Your task to perform on an android device: toggle improve location accuracy Image 0: 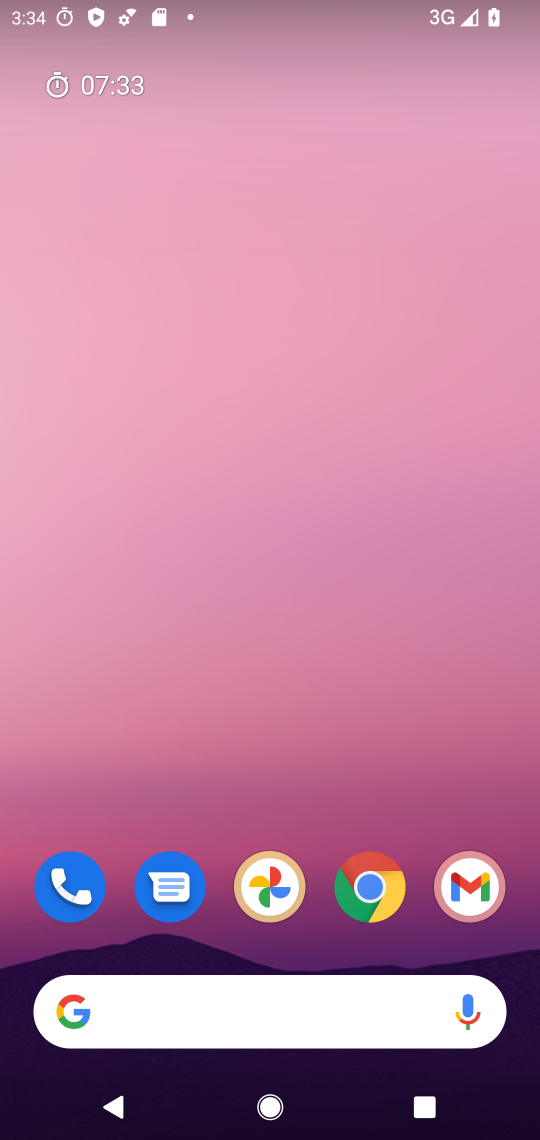
Step 0: drag from (315, 773) to (359, 228)
Your task to perform on an android device: toggle improve location accuracy Image 1: 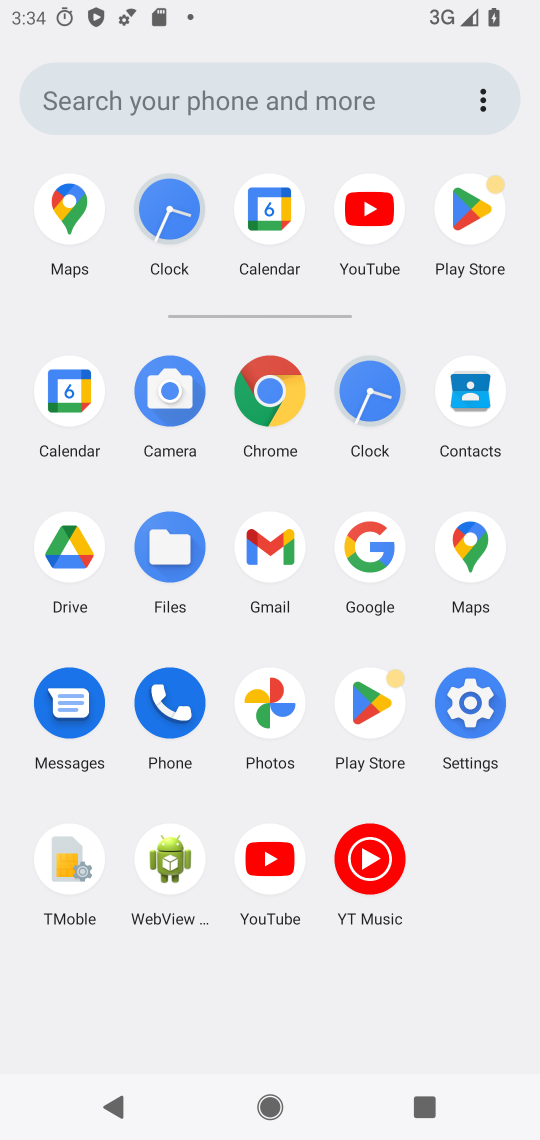
Step 1: click (479, 699)
Your task to perform on an android device: toggle improve location accuracy Image 2: 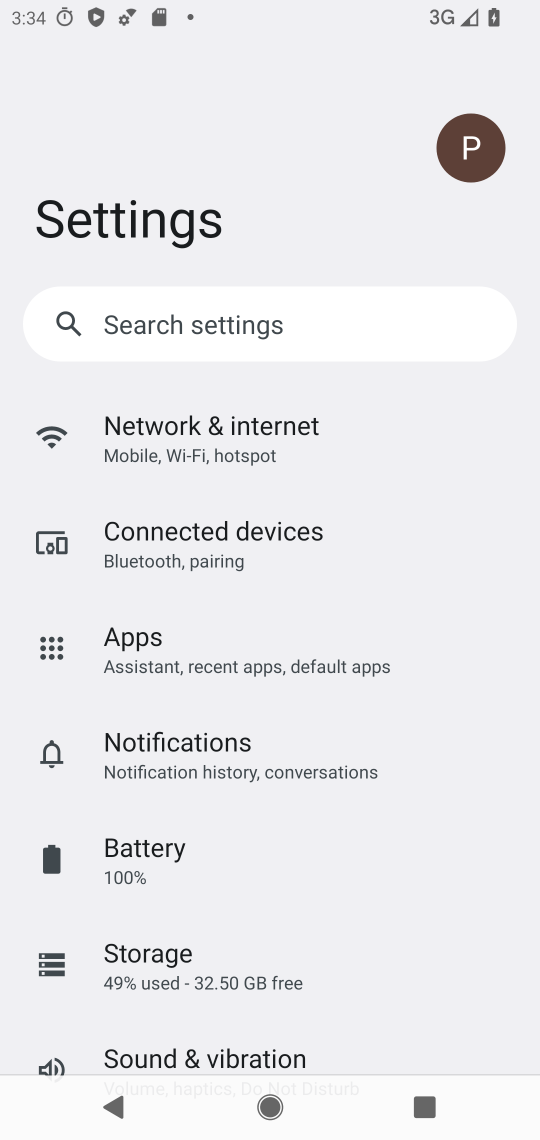
Step 2: drag from (432, 911) to (449, 693)
Your task to perform on an android device: toggle improve location accuracy Image 3: 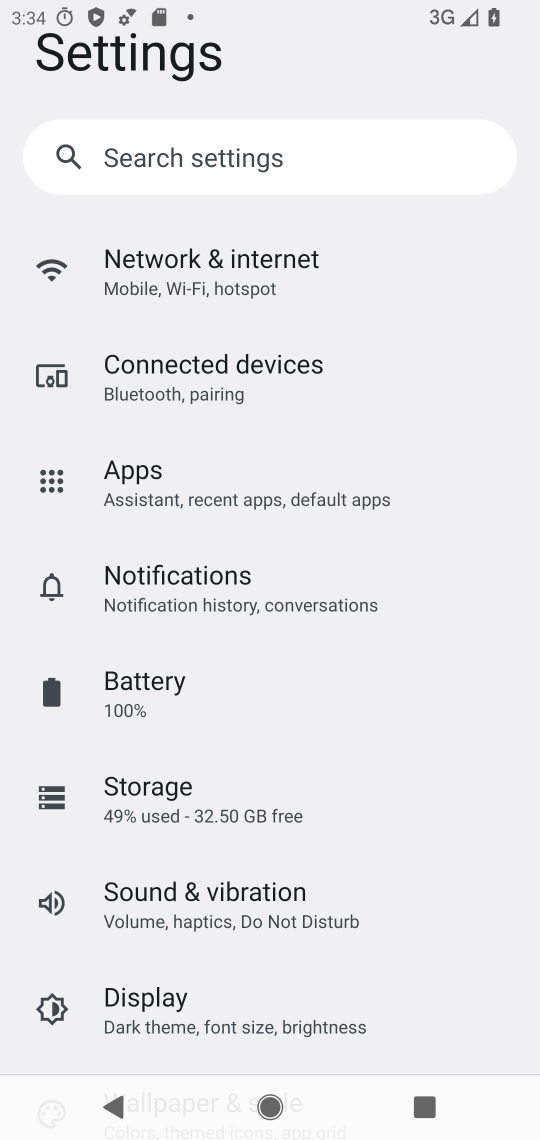
Step 3: drag from (446, 900) to (454, 664)
Your task to perform on an android device: toggle improve location accuracy Image 4: 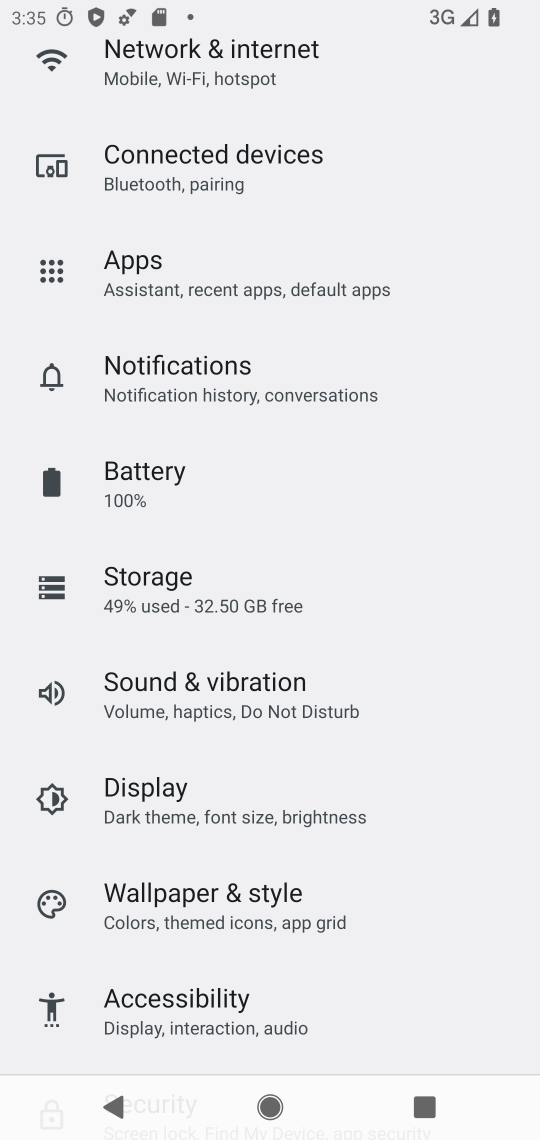
Step 4: drag from (459, 833) to (442, 560)
Your task to perform on an android device: toggle improve location accuracy Image 5: 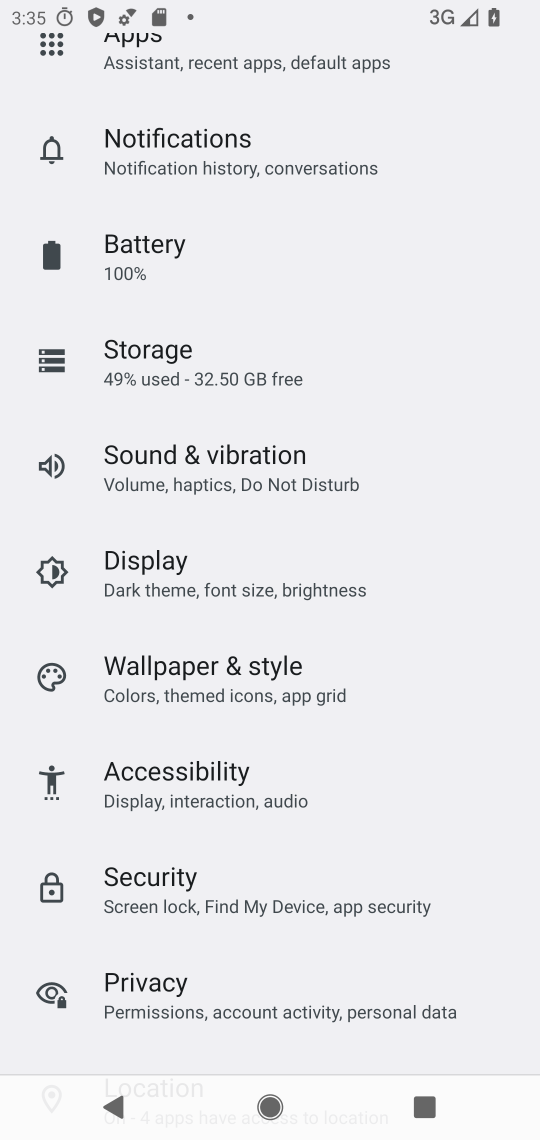
Step 5: drag from (461, 835) to (453, 651)
Your task to perform on an android device: toggle improve location accuracy Image 6: 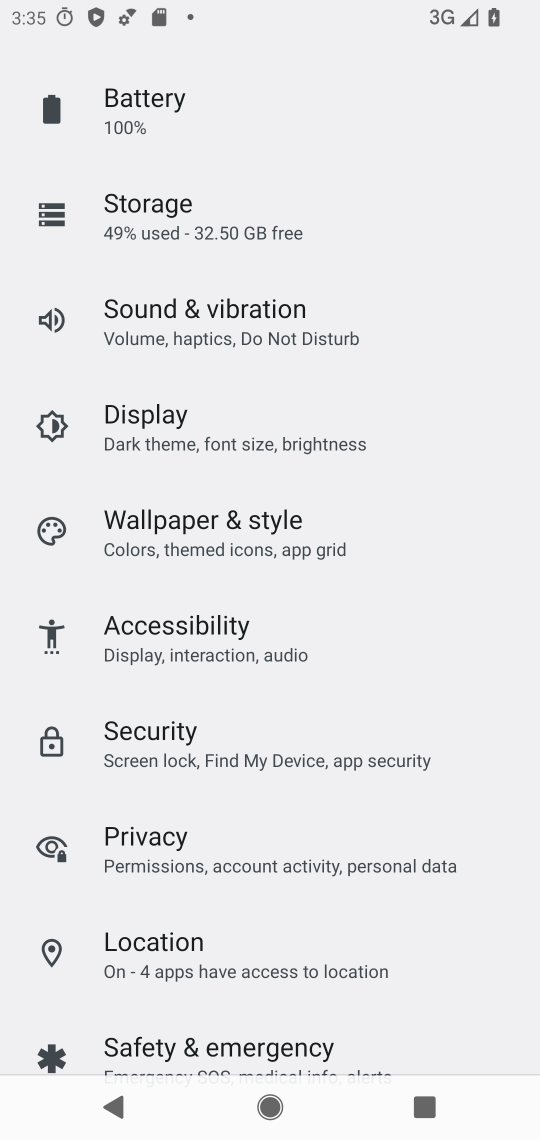
Step 6: drag from (440, 815) to (449, 602)
Your task to perform on an android device: toggle improve location accuracy Image 7: 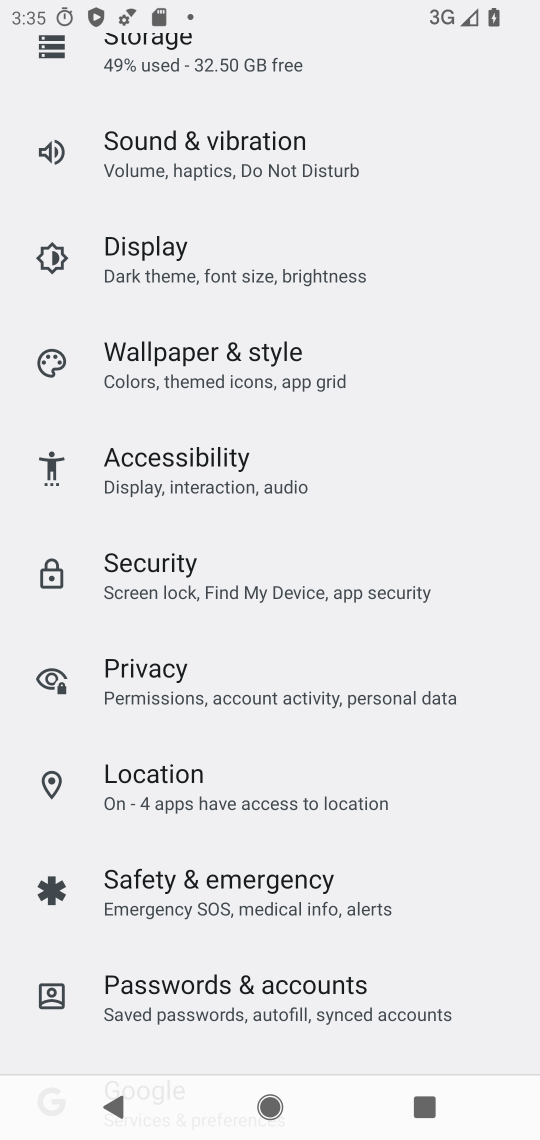
Step 7: drag from (464, 811) to (475, 626)
Your task to perform on an android device: toggle improve location accuracy Image 8: 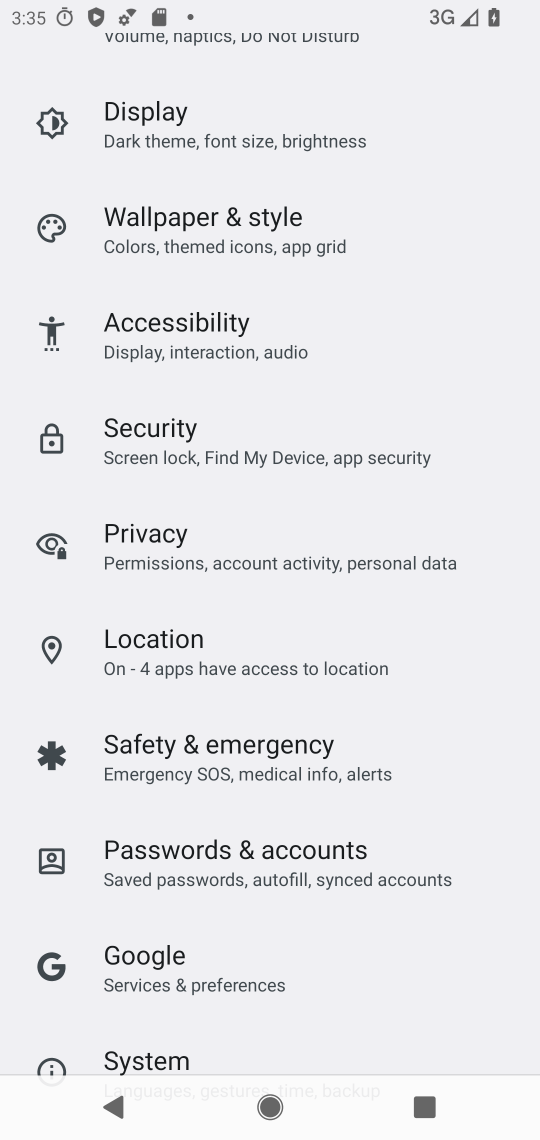
Step 8: drag from (469, 412) to (475, 629)
Your task to perform on an android device: toggle improve location accuracy Image 9: 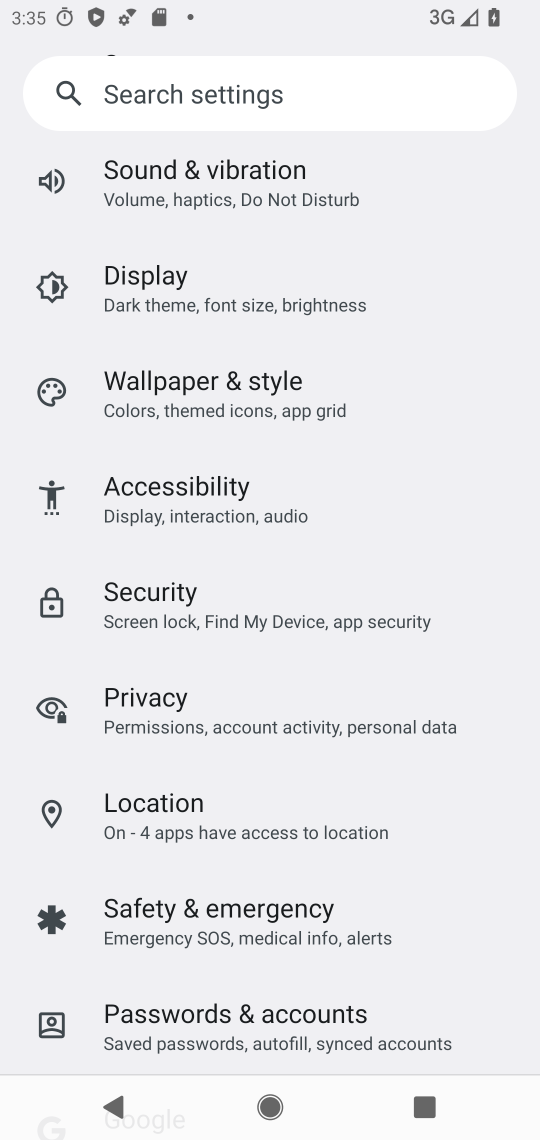
Step 9: drag from (456, 339) to (489, 589)
Your task to perform on an android device: toggle improve location accuracy Image 10: 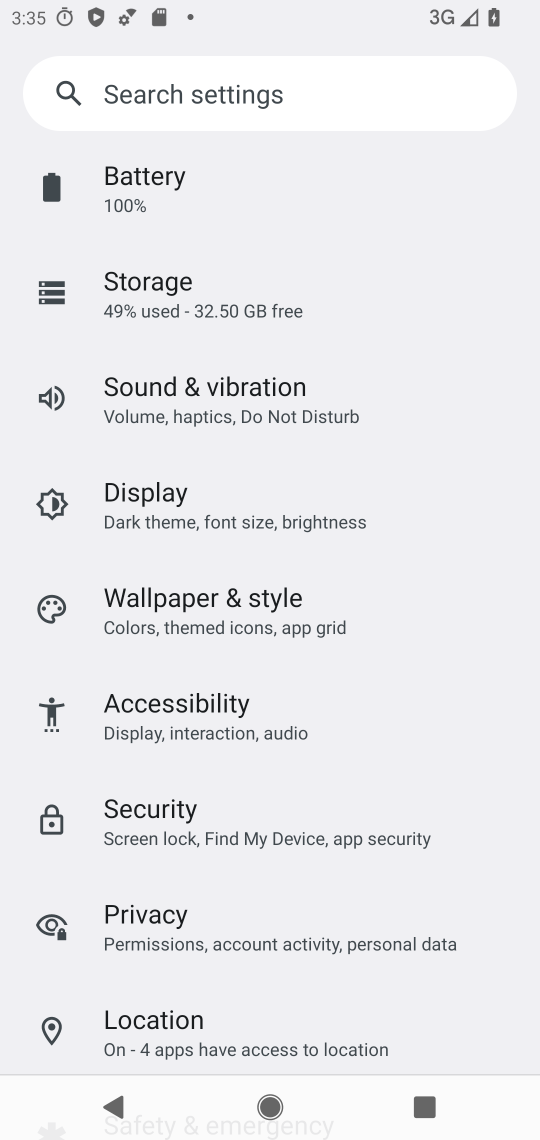
Step 10: click (326, 1023)
Your task to perform on an android device: toggle improve location accuracy Image 11: 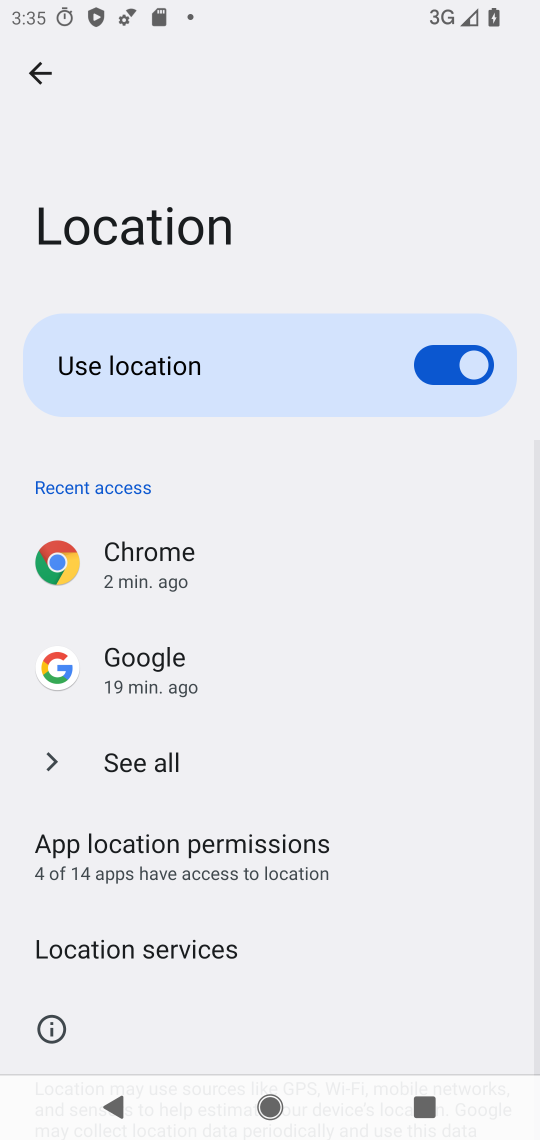
Step 11: click (220, 951)
Your task to perform on an android device: toggle improve location accuracy Image 12: 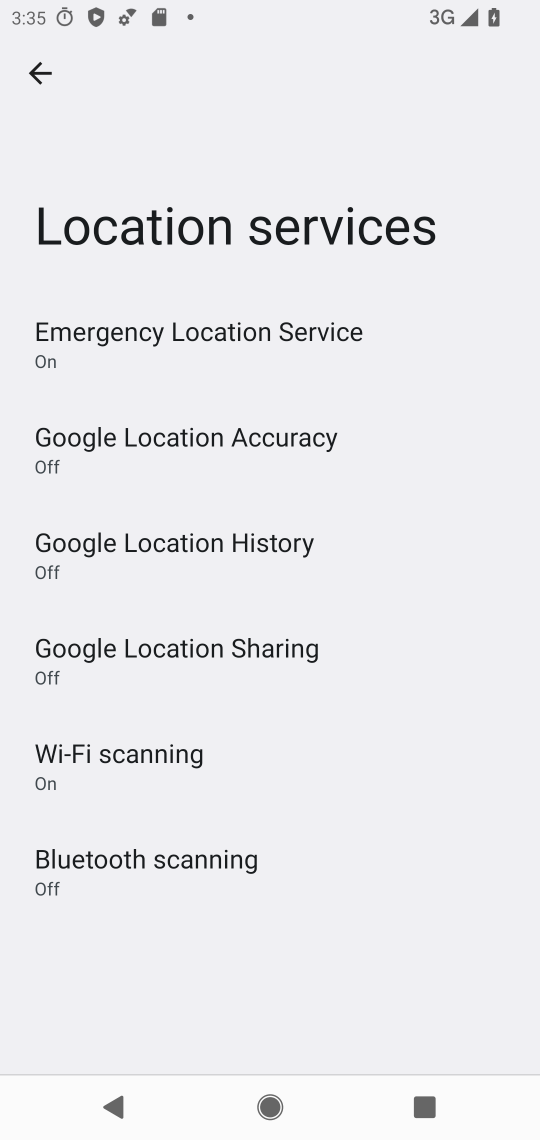
Step 12: click (179, 453)
Your task to perform on an android device: toggle improve location accuracy Image 13: 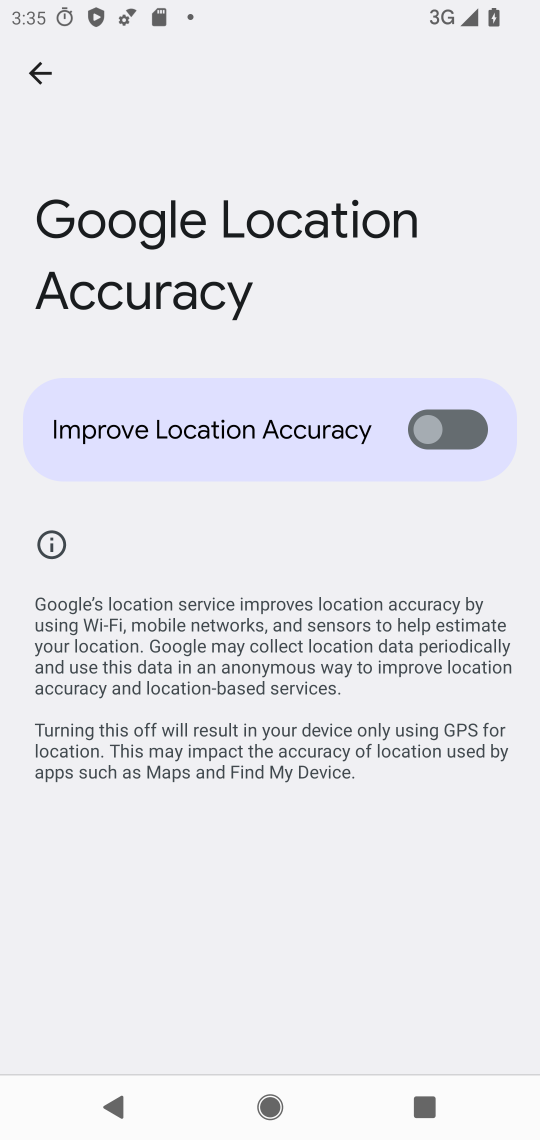
Step 13: click (433, 441)
Your task to perform on an android device: toggle improve location accuracy Image 14: 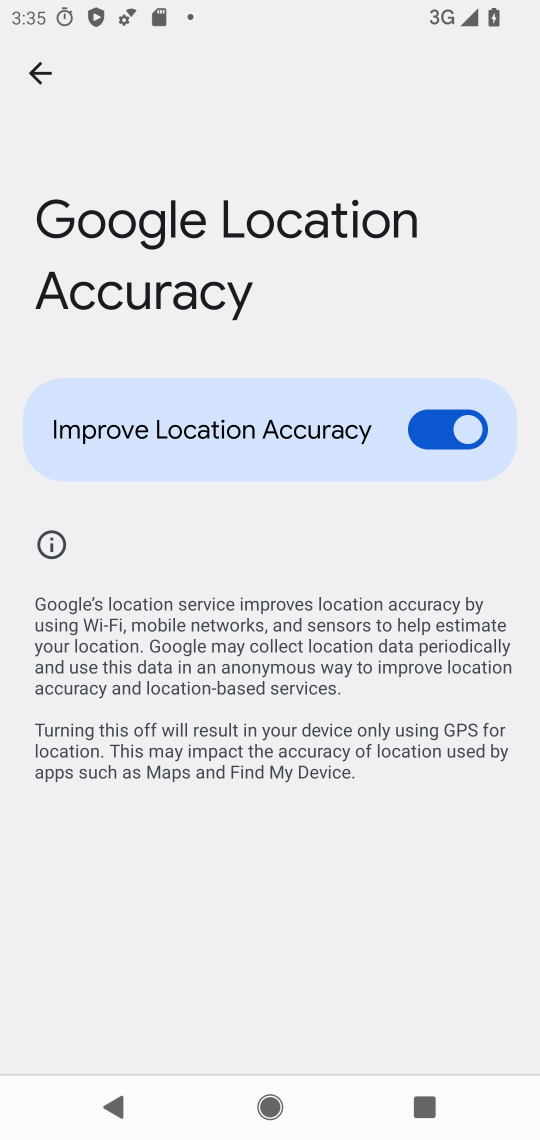
Step 14: task complete